Your task to perform on an android device: Search for sushi restaurants on Maps Image 0: 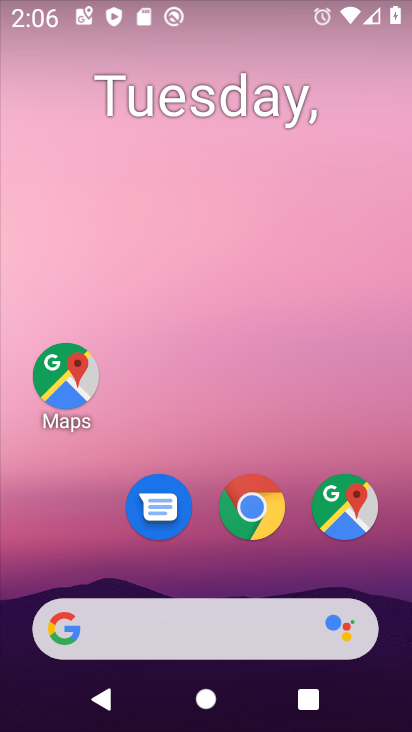
Step 0: click (46, 362)
Your task to perform on an android device: Search for sushi restaurants on Maps Image 1: 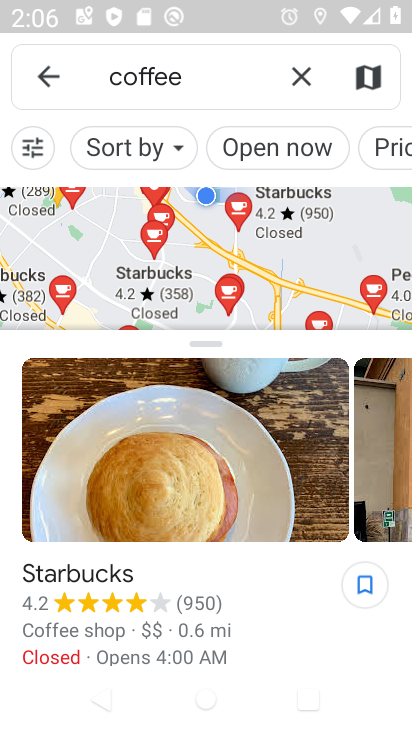
Step 1: click (304, 77)
Your task to perform on an android device: Search for sushi restaurants on Maps Image 2: 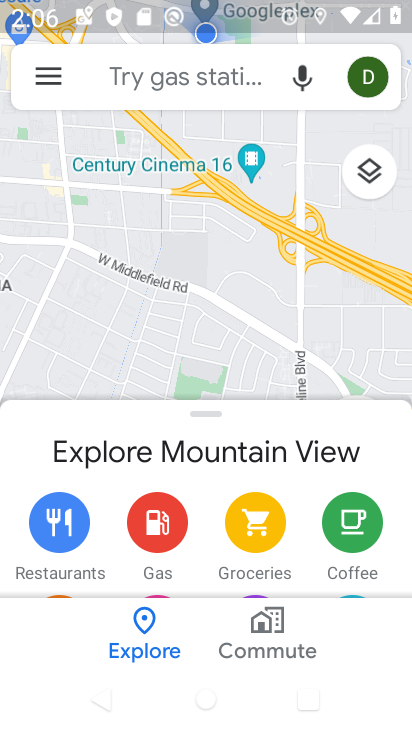
Step 2: click (212, 71)
Your task to perform on an android device: Search for sushi restaurants on Maps Image 3: 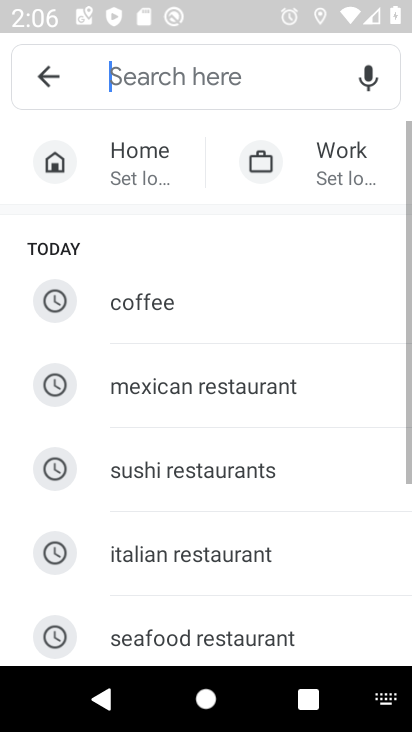
Step 3: click (189, 475)
Your task to perform on an android device: Search for sushi restaurants on Maps Image 4: 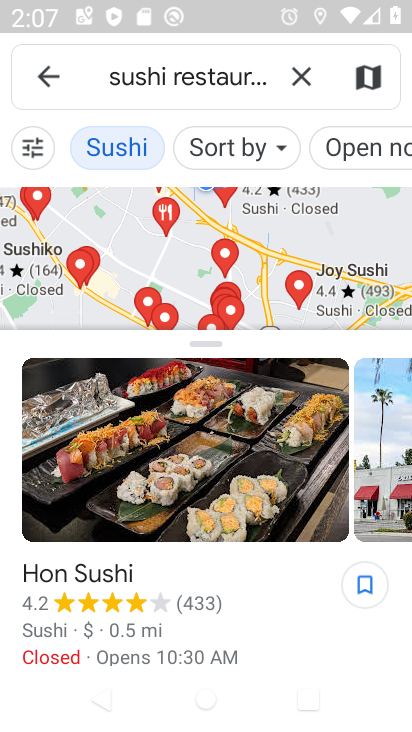
Step 4: task complete